Your task to perform on an android device: Go to Yahoo.com Image 0: 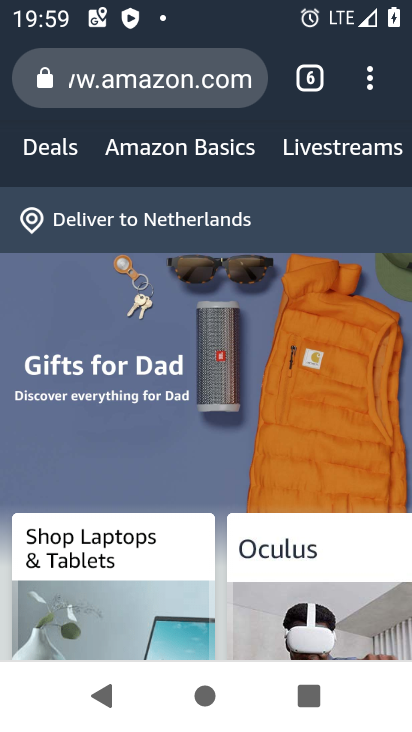
Step 0: click (368, 69)
Your task to perform on an android device: Go to Yahoo.com Image 1: 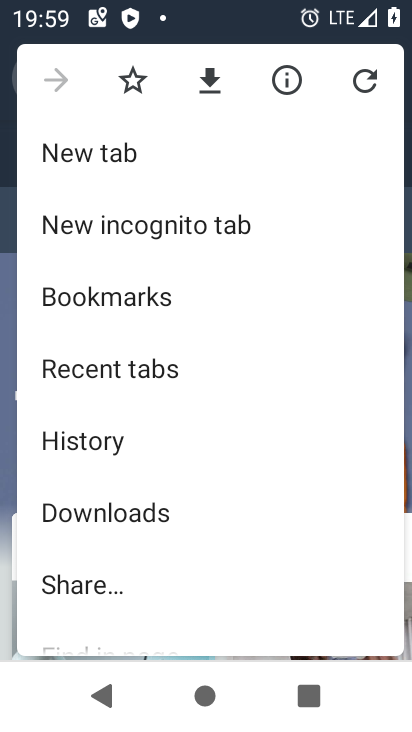
Step 1: click (111, 150)
Your task to perform on an android device: Go to Yahoo.com Image 2: 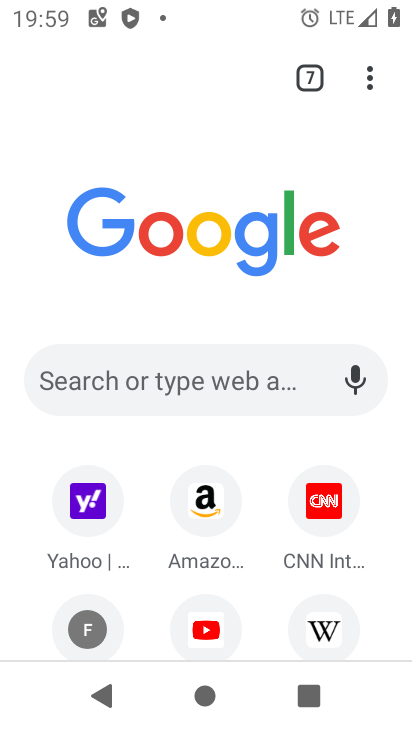
Step 2: click (83, 511)
Your task to perform on an android device: Go to Yahoo.com Image 3: 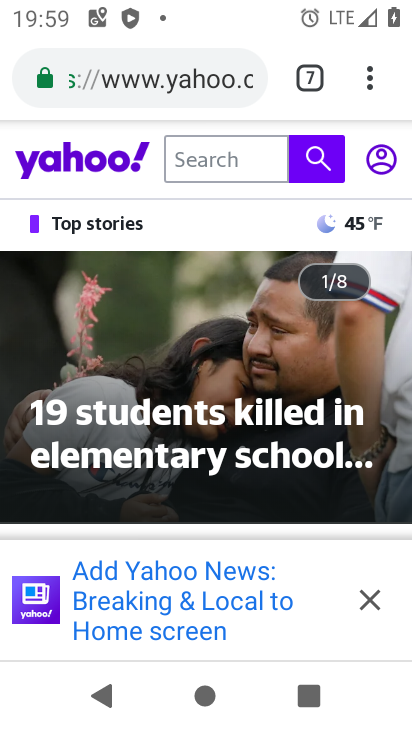
Step 3: task complete